Your task to perform on an android device: open app "Move to iOS" (install if not already installed) and enter user name: "Decca@icloud.com" and password: "reabbreviate" Image 0: 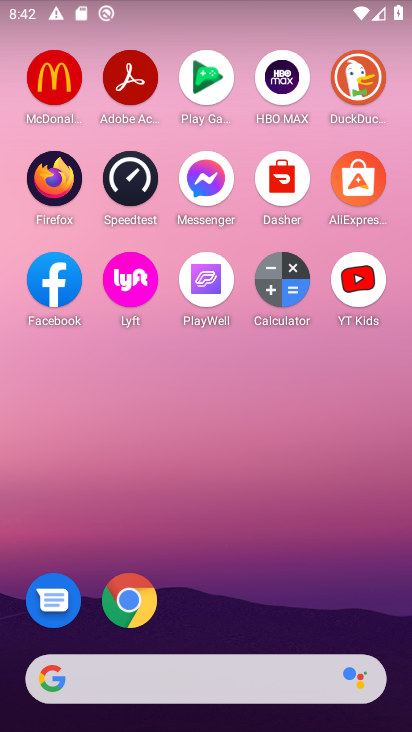
Step 0: drag from (188, 372) to (188, 46)
Your task to perform on an android device: open app "Move to iOS" (install if not already installed) and enter user name: "Decca@icloud.com" and password: "reabbreviate" Image 1: 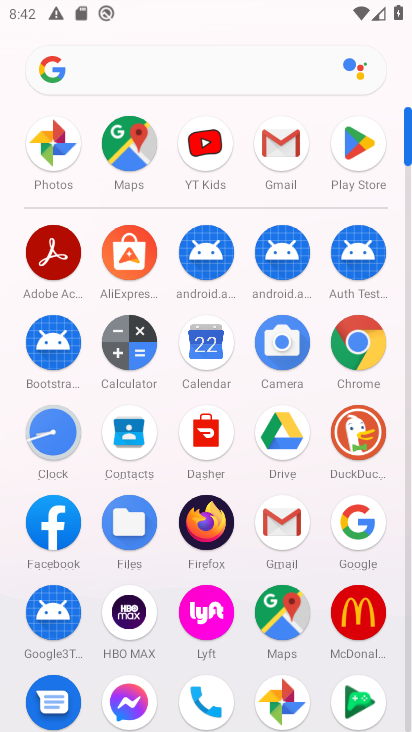
Step 1: click (362, 135)
Your task to perform on an android device: open app "Move to iOS" (install if not already installed) and enter user name: "Decca@icloud.com" and password: "reabbreviate" Image 2: 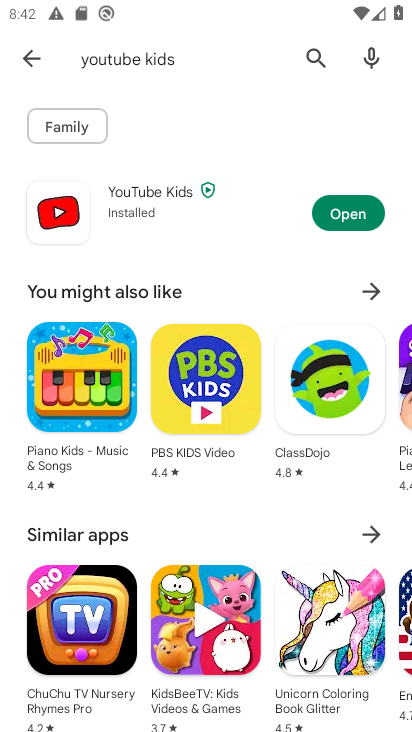
Step 2: click (308, 47)
Your task to perform on an android device: open app "Move to iOS" (install if not already installed) and enter user name: "Decca@icloud.com" and password: "reabbreviate" Image 3: 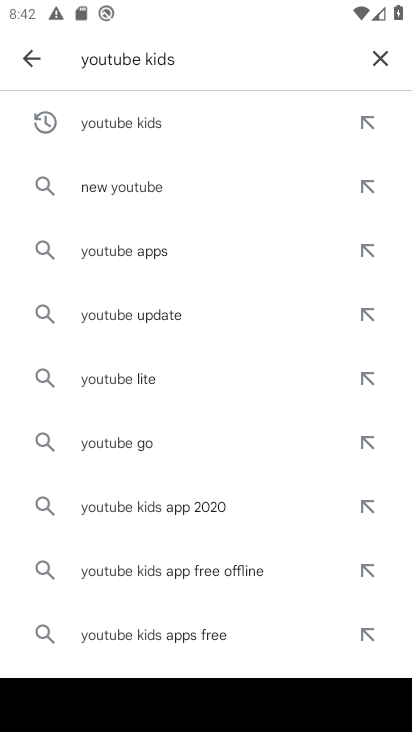
Step 3: click (376, 66)
Your task to perform on an android device: open app "Move to iOS" (install if not already installed) and enter user name: "Decca@icloud.com" and password: "reabbreviate" Image 4: 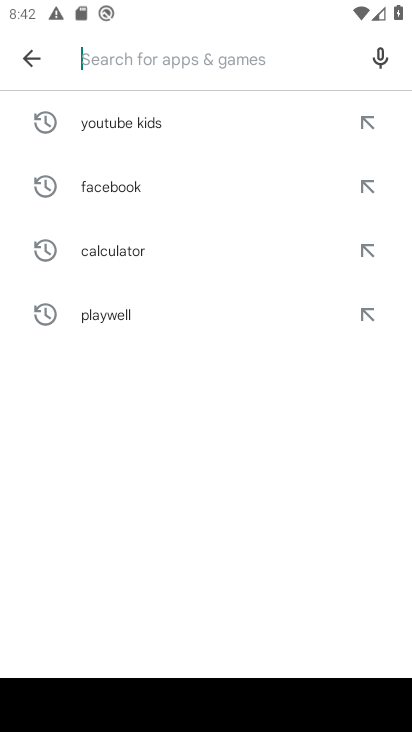
Step 4: type "Move to iOS"
Your task to perform on an android device: open app "Move to iOS" (install if not already installed) and enter user name: "Decca@icloud.com" and password: "reabbreviate" Image 5: 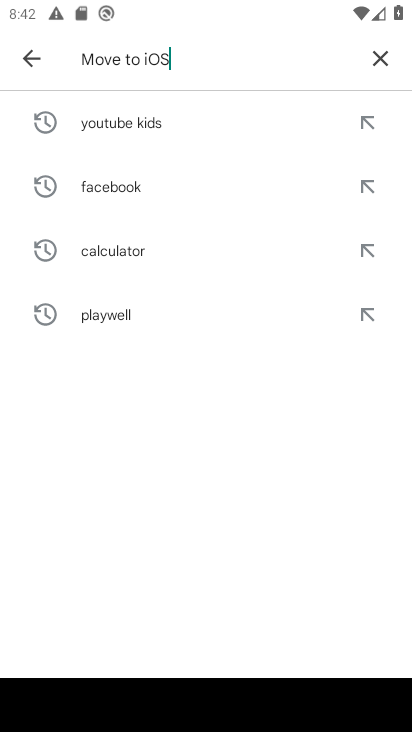
Step 5: type ""
Your task to perform on an android device: open app "Move to iOS" (install if not already installed) and enter user name: "Decca@icloud.com" and password: "reabbreviate" Image 6: 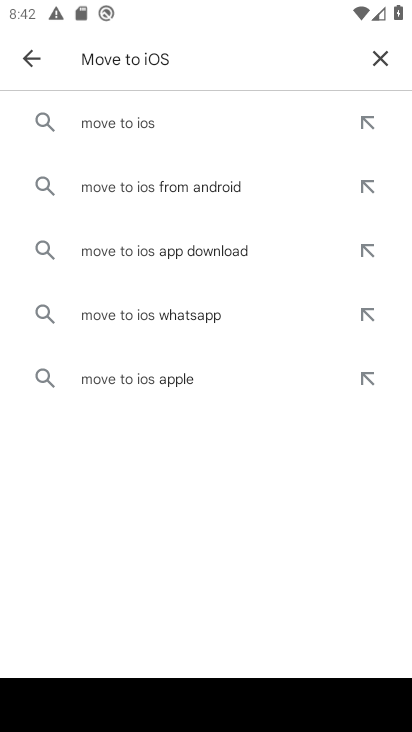
Step 6: click (145, 128)
Your task to perform on an android device: open app "Move to iOS" (install if not already installed) and enter user name: "Decca@icloud.com" and password: "reabbreviate" Image 7: 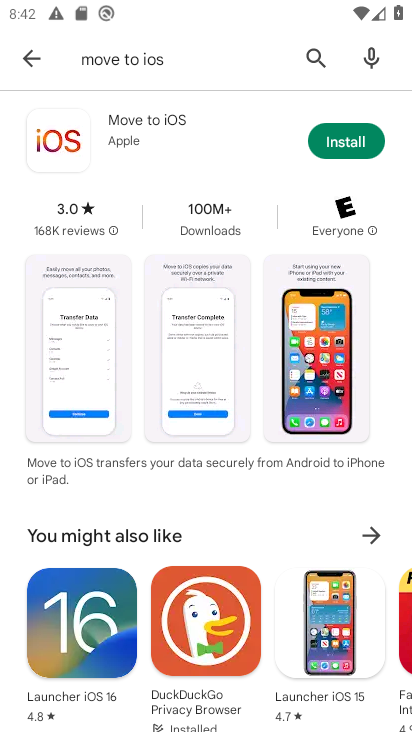
Step 7: click (319, 143)
Your task to perform on an android device: open app "Move to iOS" (install if not already installed) and enter user name: "Decca@icloud.com" and password: "reabbreviate" Image 8: 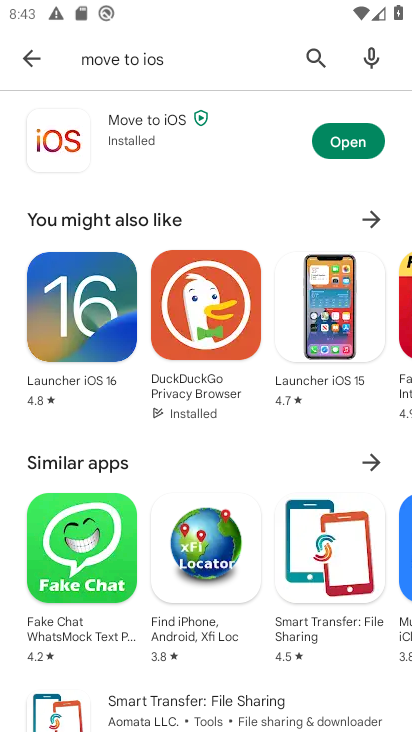
Step 8: click (319, 143)
Your task to perform on an android device: open app "Move to iOS" (install if not already installed) and enter user name: "Decca@icloud.com" and password: "reabbreviate" Image 9: 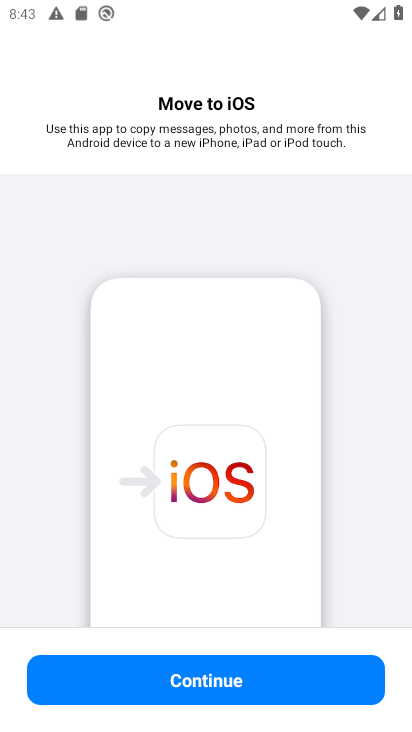
Step 9: task complete